Your task to perform on an android device: turn notification dots off Image 0: 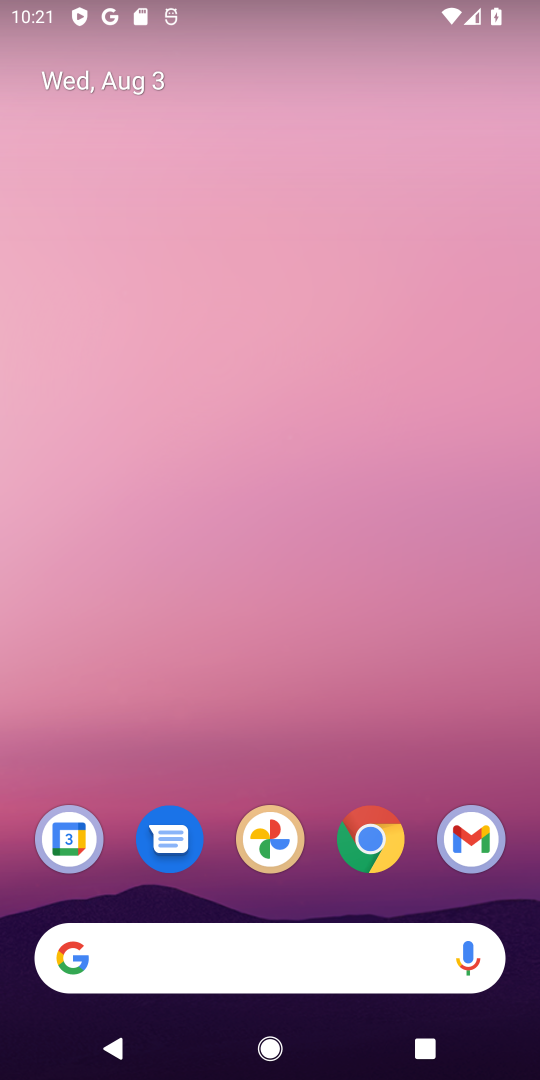
Step 0: drag from (303, 921) to (323, 164)
Your task to perform on an android device: turn notification dots off Image 1: 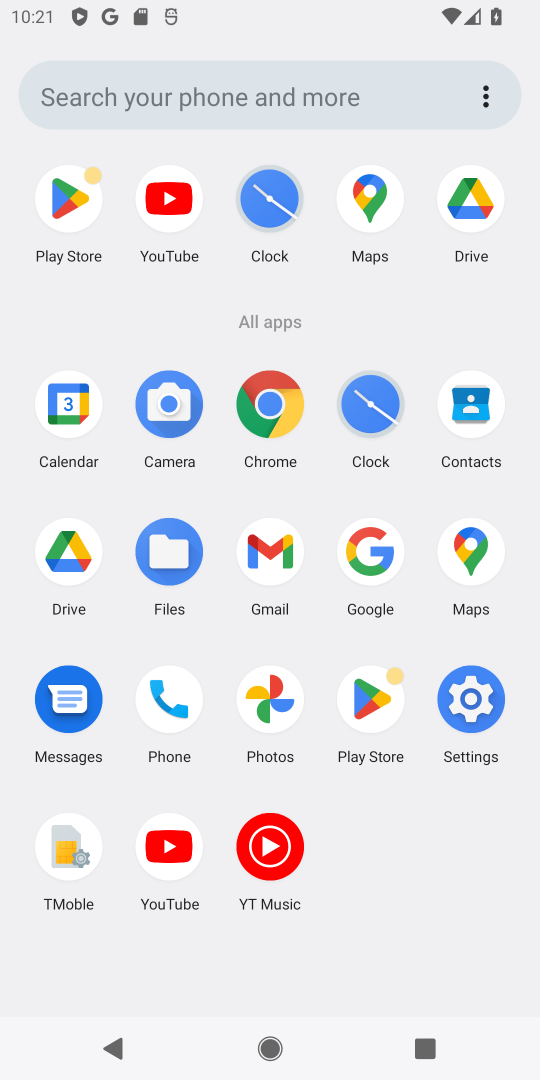
Step 1: click (461, 722)
Your task to perform on an android device: turn notification dots off Image 2: 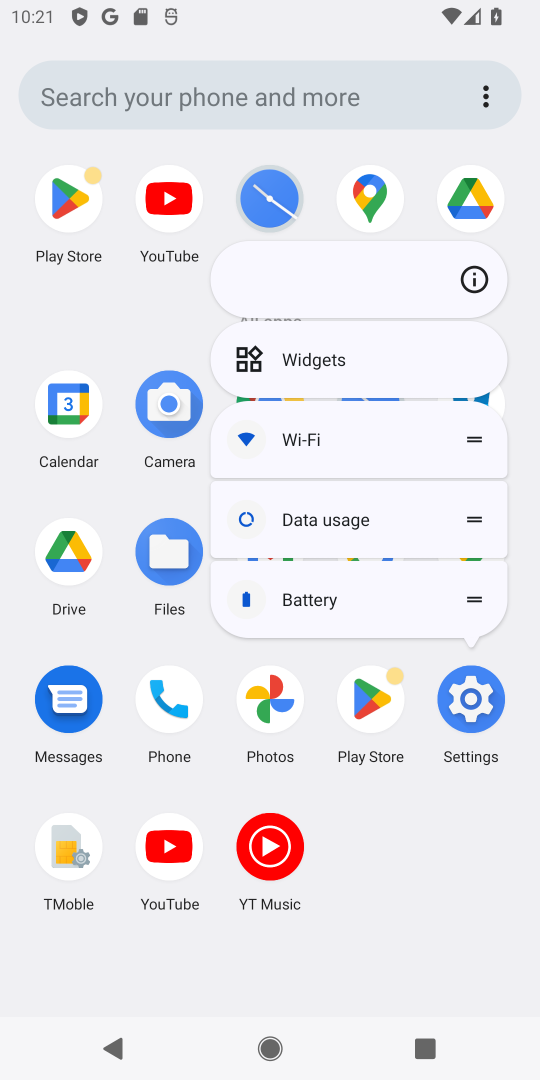
Step 2: click (485, 724)
Your task to perform on an android device: turn notification dots off Image 3: 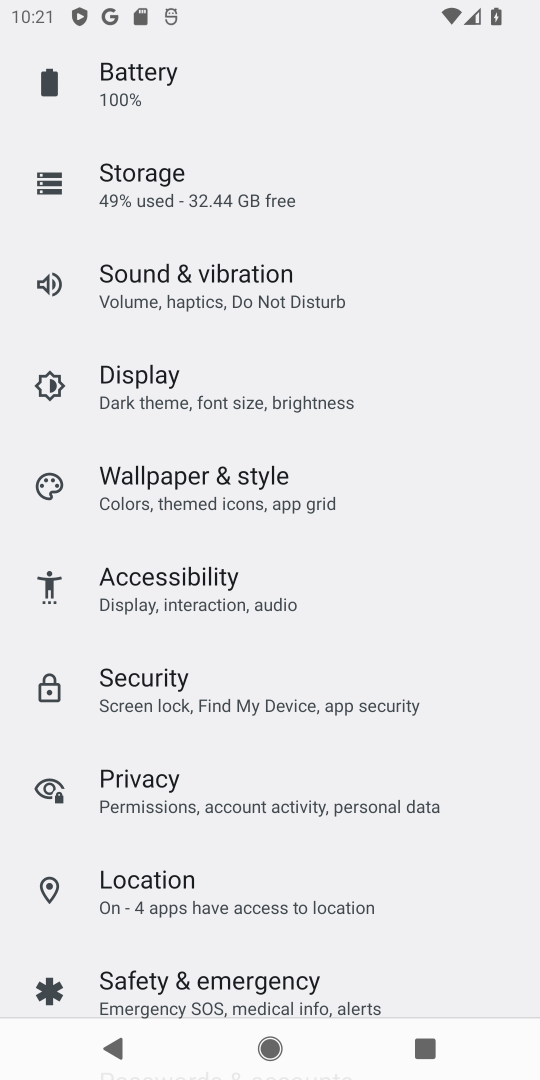
Step 3: drag from (220, 342) to (214, 946)
Your task to perform on an android device: turn notification dots off Image 4: 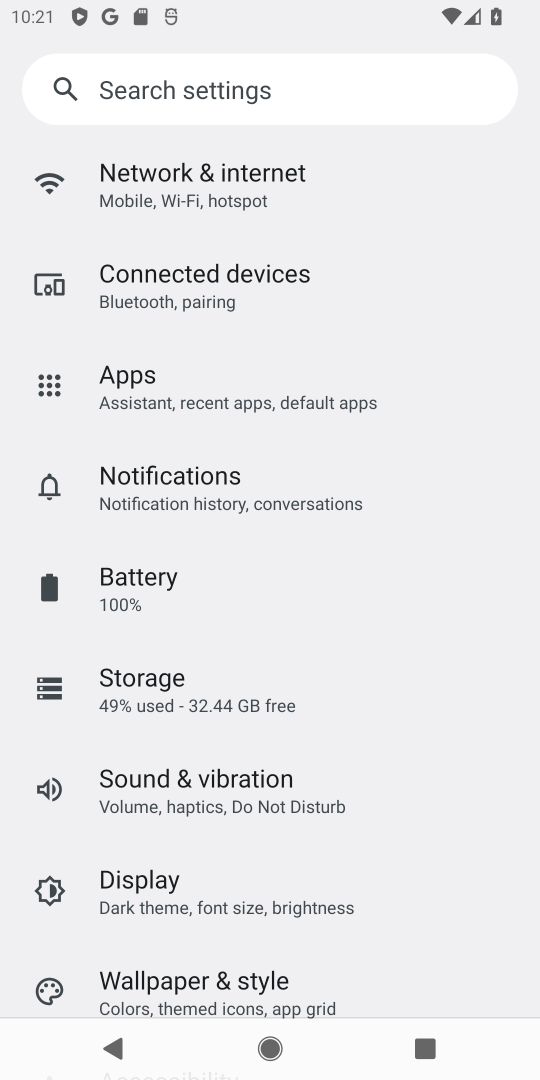
Step 4: click (183, 492)
Your task to perform on an android device: turn notification dots off Image 5: 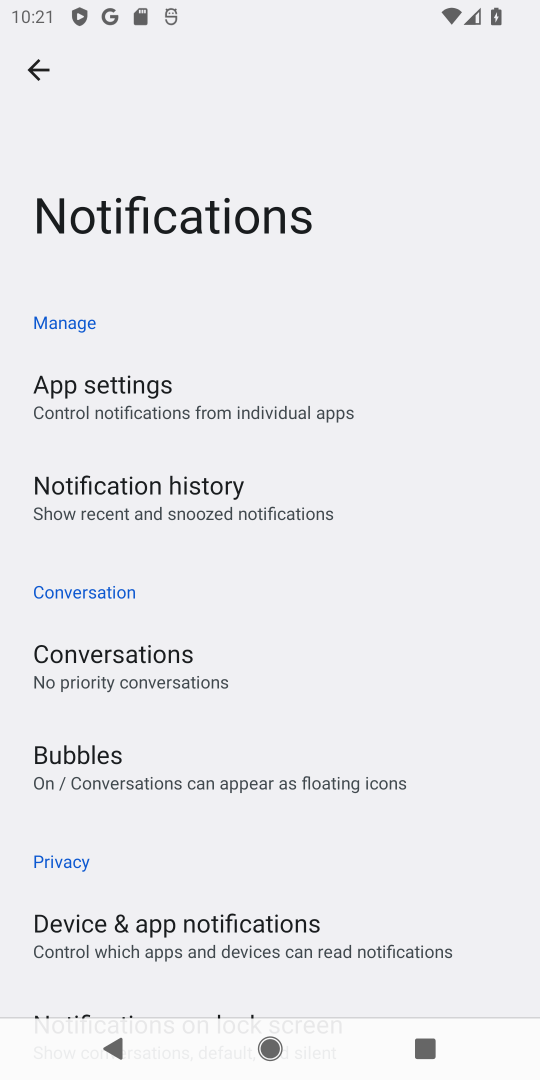
Step 5: drag from (185, 419) to (205, 252)
Your task to perform on an android device: turn notification dots off Image 6: 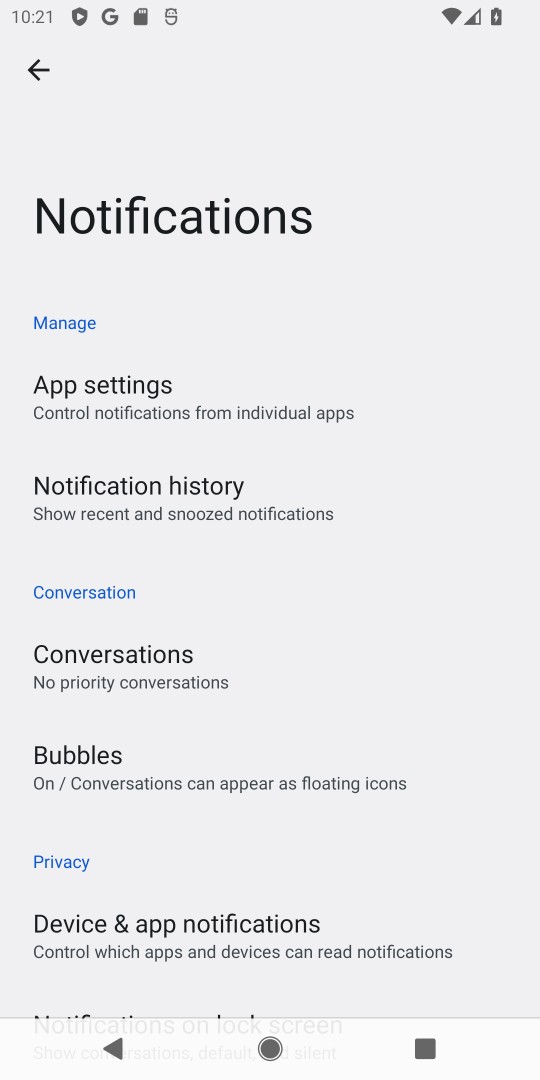
Step 6: drag from (252, 862) to (252, 410)
Your task to perform on an android device: turn notification dots off Image 7: 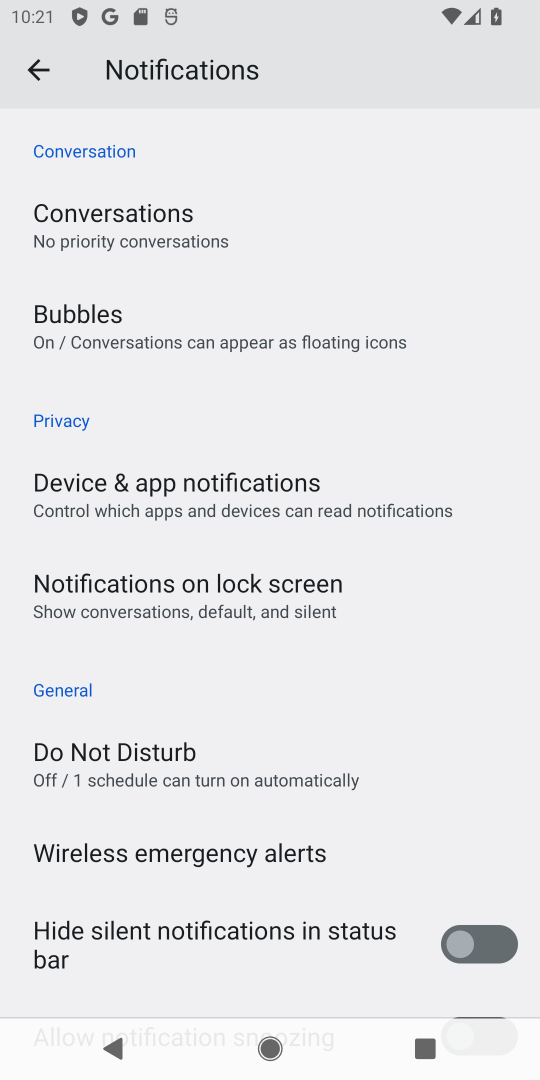
Step 7: drag from (260, 910) to (256, 571)
Your task to perform on an android device: turn notification dots off Image 8: 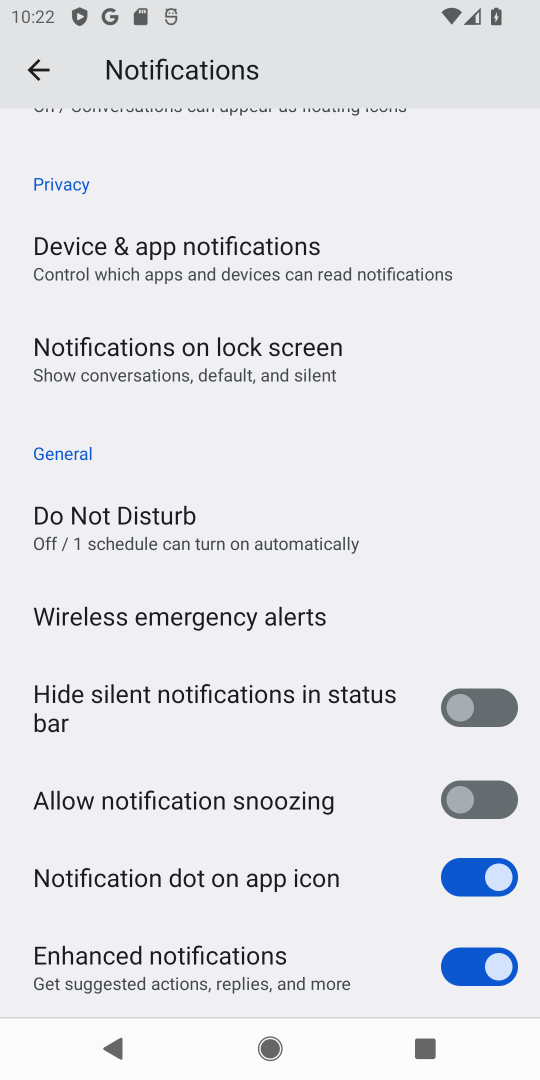
Step 8: click (449, 883)
Your task to perform on an android device: turn notification dots off Image 9: 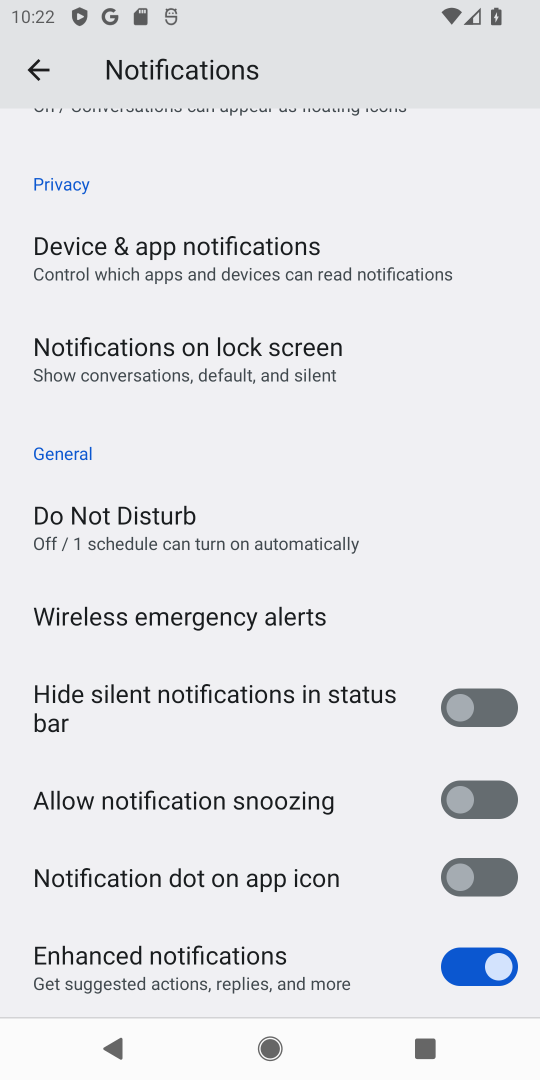
Step 9: task complete